Your task to perform on an android device: Go to calendar. Show me events next week Image 0: 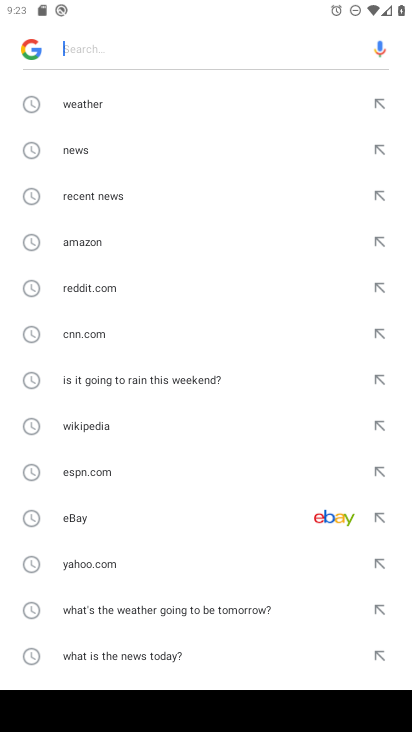
Step 0: press home button
Your task to perform on an android device: Go to calendar. Show me events next week Image 1: 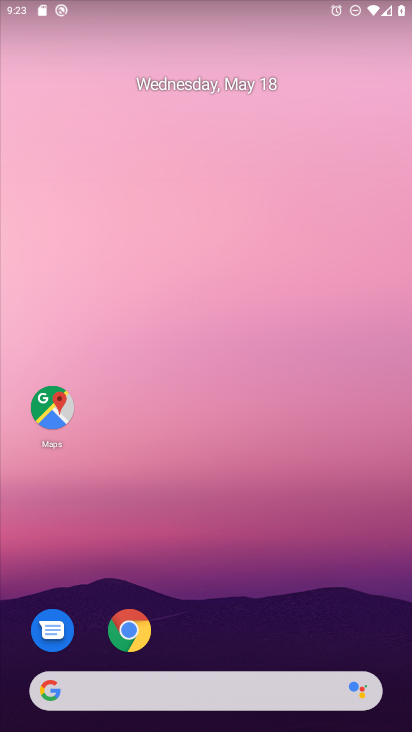
Step 1: drag from (213, 656) to (120, 41)
Your task to perform on an android device: Go to calendar. Show me events next week Image 2: 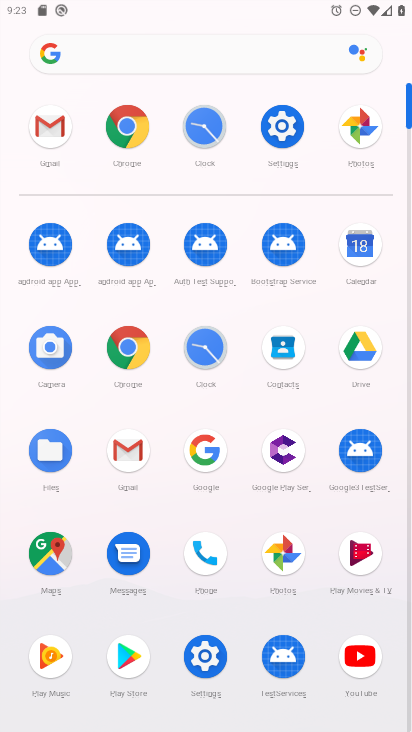
Step 2: click (365, 247)
Your task to perform on an android device: Go to calendar. Show me events next week Image 3: 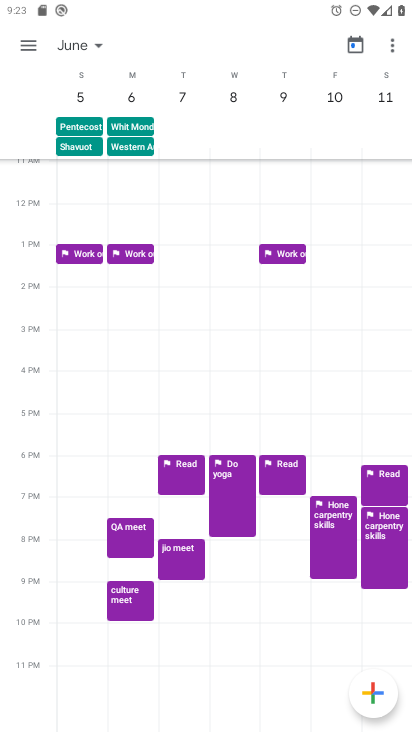
Step 3: click (356, 41)
Your task to perform on an android device: Go to calendar. Show me events next week Image 4: 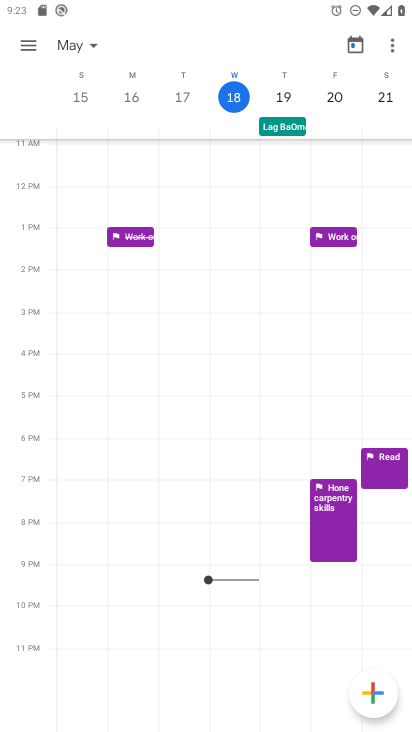
Step 4: task complete